Your task to perform on an android device: Open the calendar and show me this week's events Image 0: 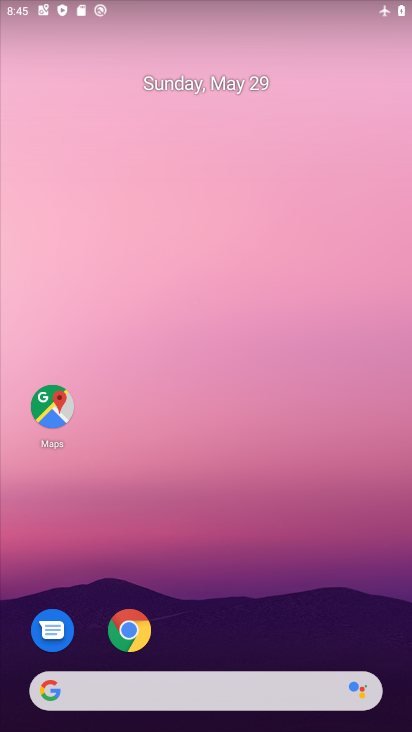
Step 0: drag from (194, 656) to (203, 203)
Your task to perform on an android device: Open the calendar and show me this week's events Image 1: 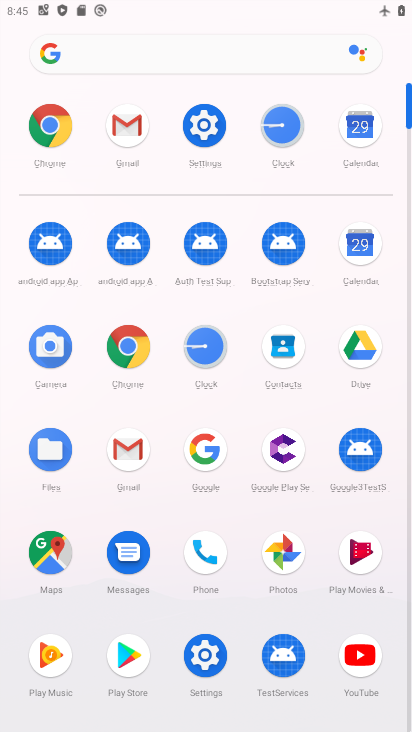
Step 1: click (360, 255)
Your task to perform on an android device: Open the calendar and show me this week's events Image 2: 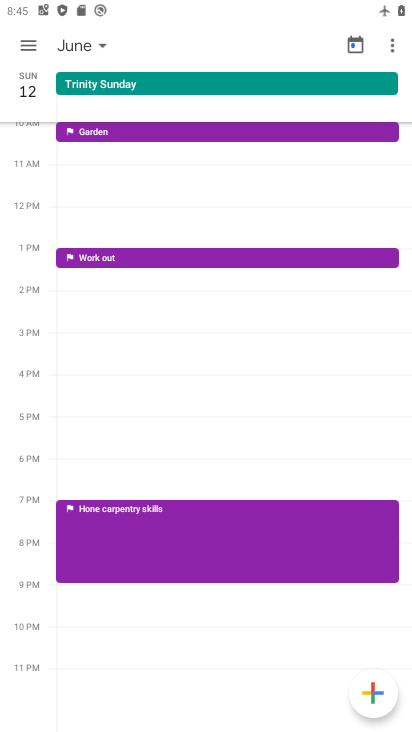
Step 2: click (20, 49)
Your task to perform on an android device: Open the calendar and show me this week's events Image 3: 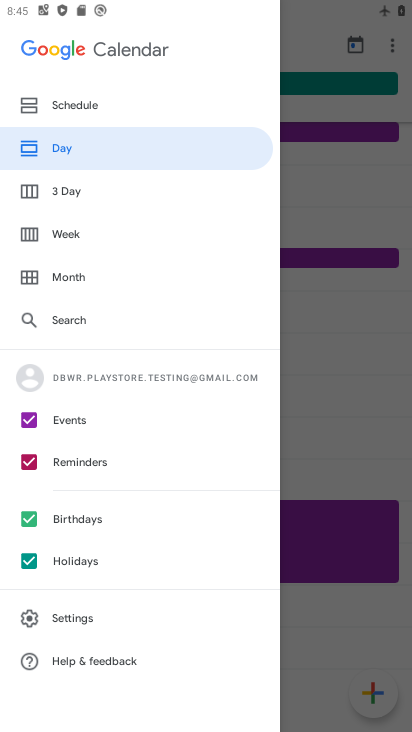
Step 3: click (66, 242)
Your task to perform on an android device: Open the calendar and show me this week's events Image 4: 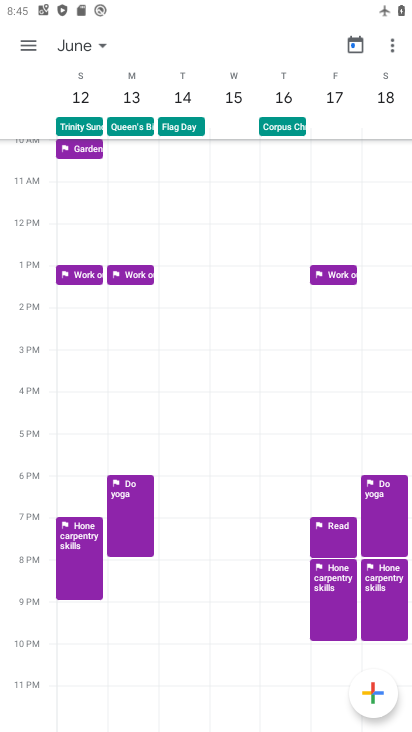
Step 4: click (352, 31)
Your task to perform on an android device: Open the calendar and show me this week's events Image 5: 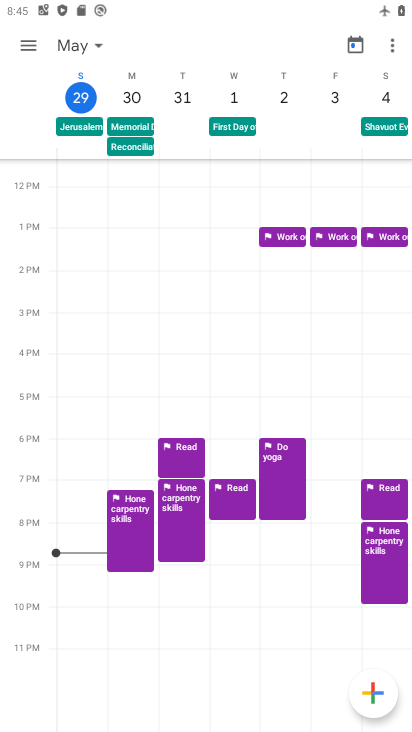
Step 5: task complete